Your task to perform on an android device: Go to eBay Image 0: 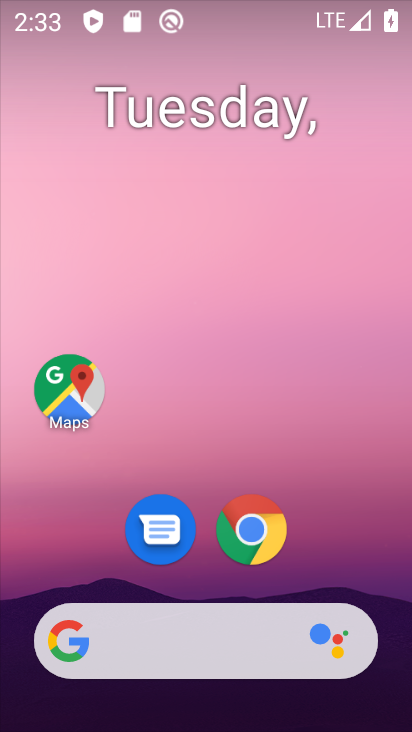
Step 0: drag from (400, 622) to (342, 167)
Your task to perform on an android device: Go to eBay Image 1: 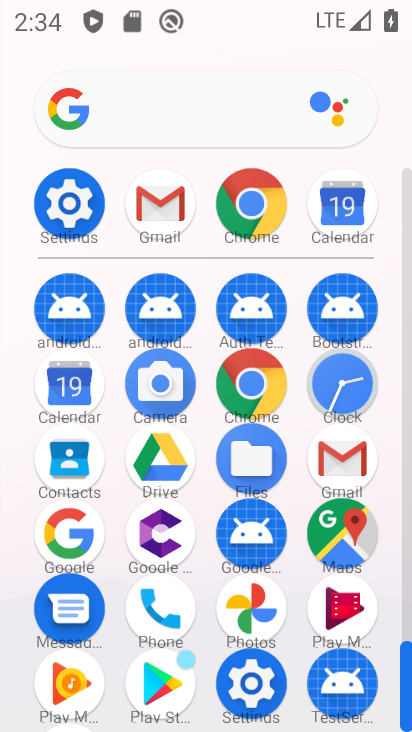
Step 1: click (265, 391)
Your task to perform on an android device: Go to eBay Image 2: 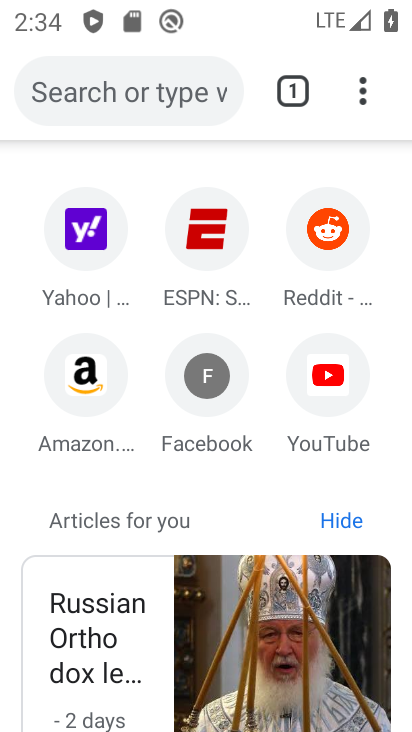
Step 2: click (155, 80)
Your task to perform on an android device: Go to eBay Image 3: 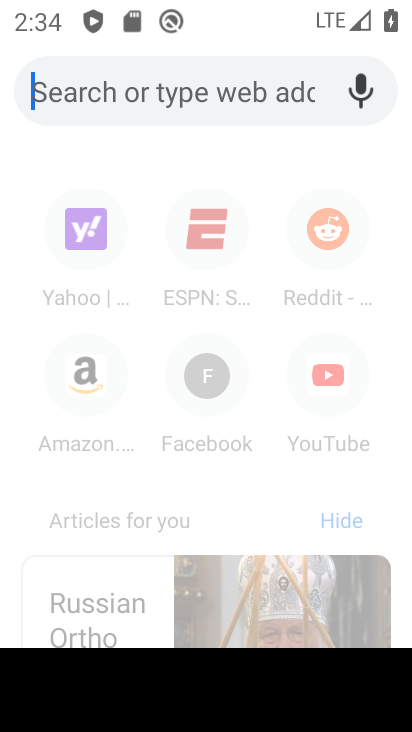
Step 3: type "ebay"
Your task to perform on an android device: Go to eBay Image 4: 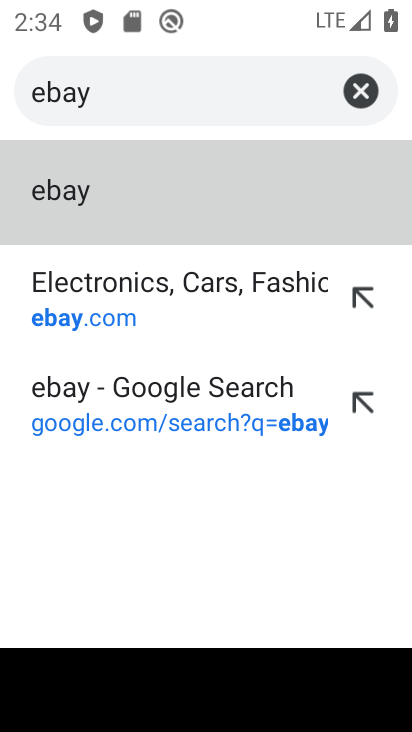
Step 4: click (192, 184)
Your task to perform on an android device: Go to eBay Image 5: 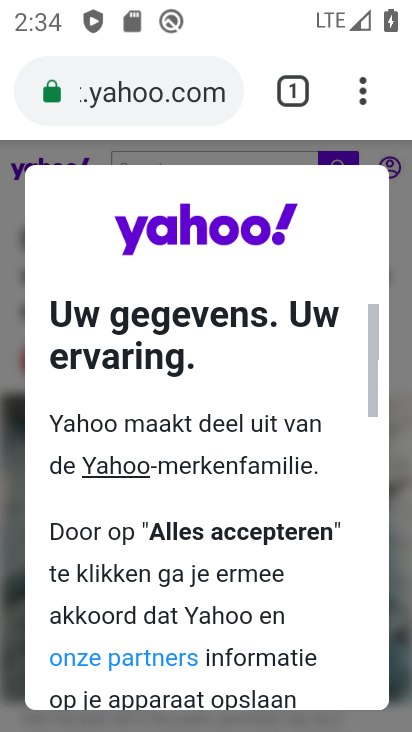
Step 5: task complete